Your task to perform on an android device: Open accessibility settings Image 0: 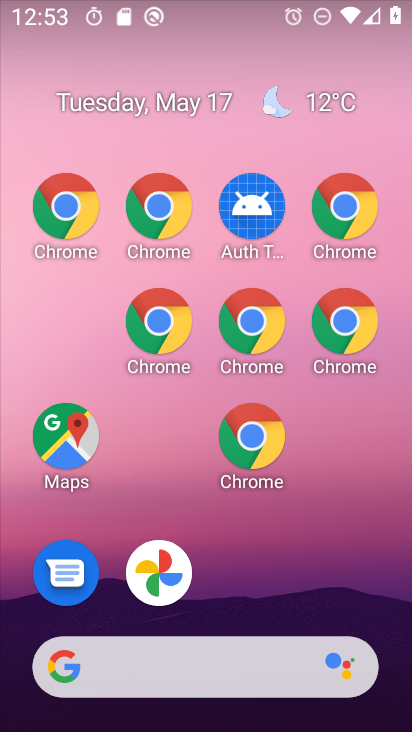
Step 0: click (186, 76)
Your task to perform on an android device: Open accessibility settings Image 1: 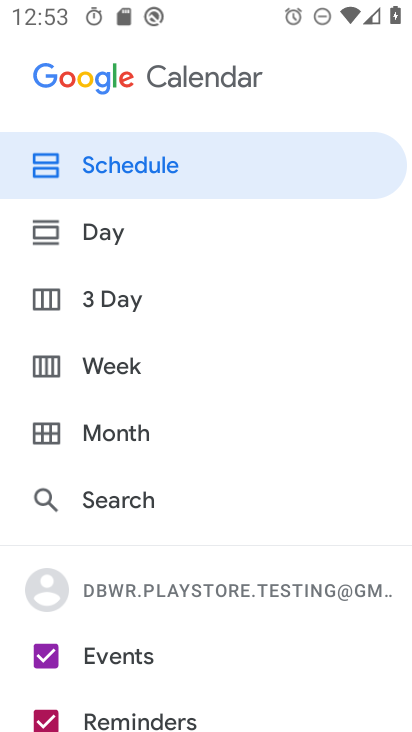
Step 1: press back button
Your task to perform on an android device: Open accessibility settings Image 2: 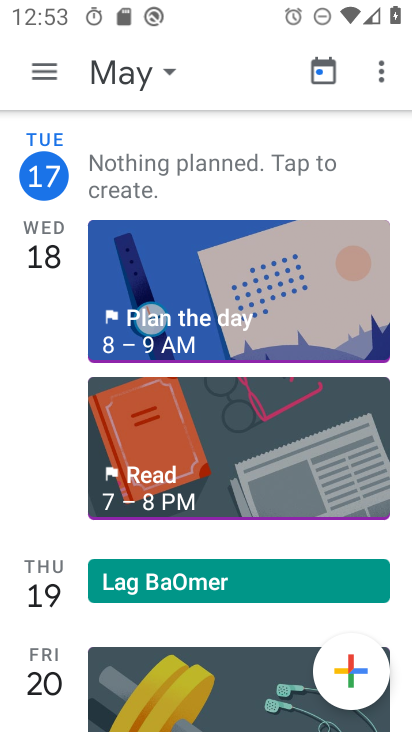
Step 2: press home button
Your task to perform on an android device: Open accessibility settings Image 3: 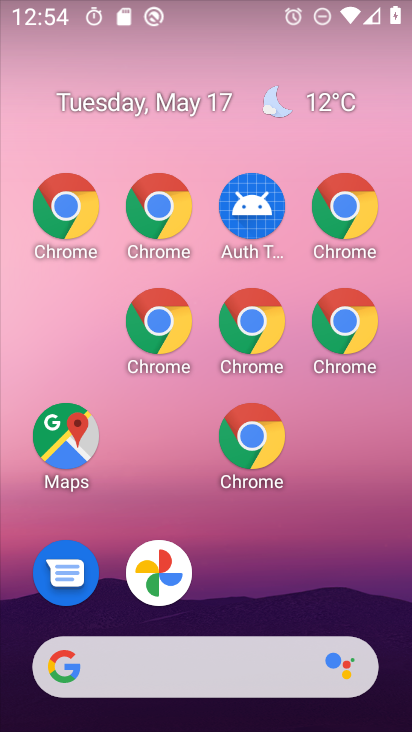
Step 3: drag from (314, 638) to (254, 193)
Your task to perform on an android device: Open accessibility settings Image 4: 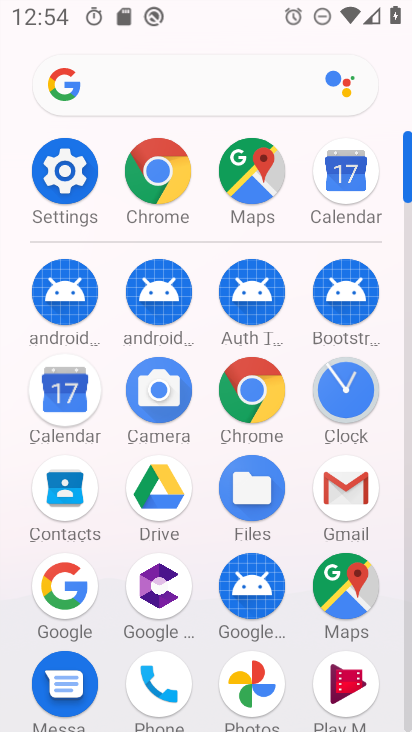
Step 4: click (67, 171)
Your task to perform on an android device: Open accessibility settings Image 5: 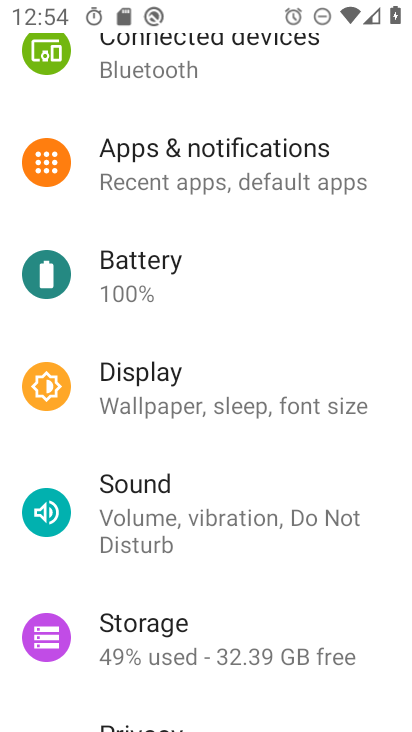
Step 5: drag from (191, 526) to (161, 76)
Your task to perform on an android device: Open accessibility settings Image 6: 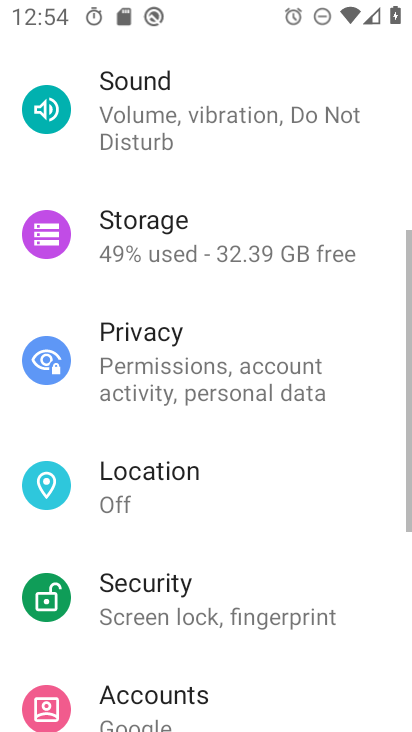
Step 6: drag from (209, 408) to (169, 60)
Your task to perform on an android device: Open accessibility settings Image 7: 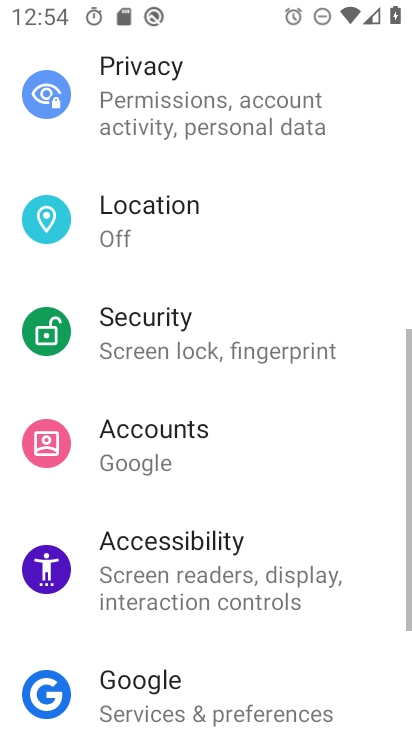
Step 7: drag from (167, 487) to (188, 79)
Your task to perform on an android device: Open accessibility settings Image 8: 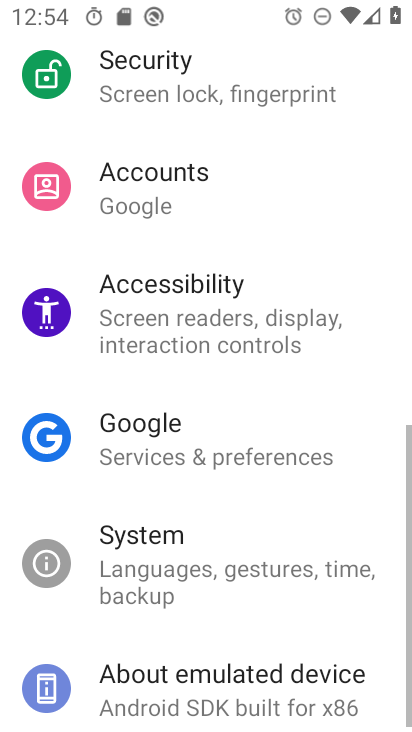
Step 8: drag from (228, 461) to (310, 80)
Your task to perform on an android device: Open accessibility settings Image 9: 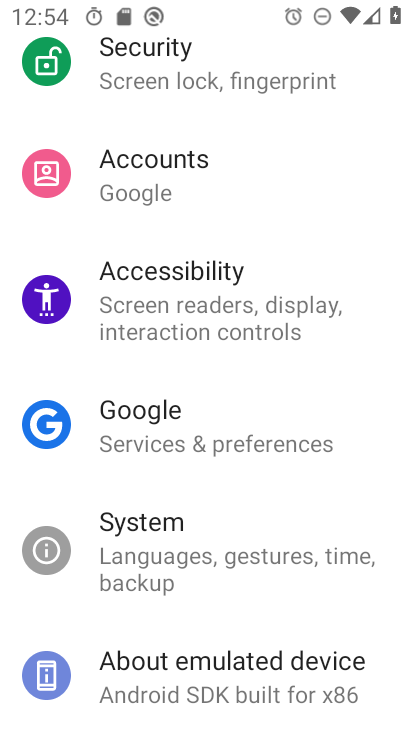
Step 9: click (187, 305)
Your task to perform on an android device: Open accessibility settings Image 10: 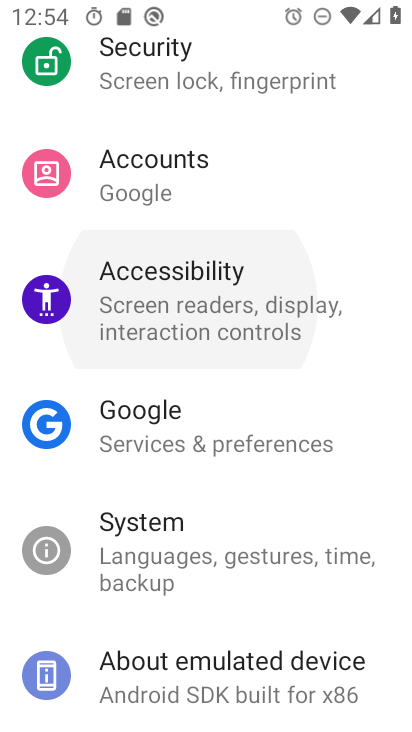
Step 10: click (187, 305)
Your task to perform on an android device: Open accessibility settings Image 11: 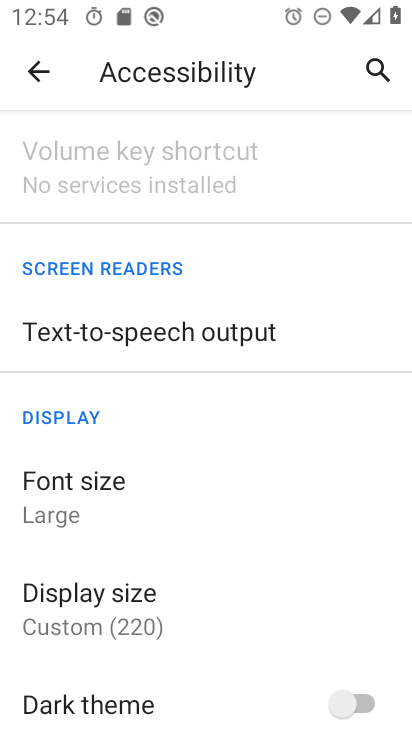
Step 11: task complete